Your task to perform on an android device: toggle translation in the chrome app Image 0: 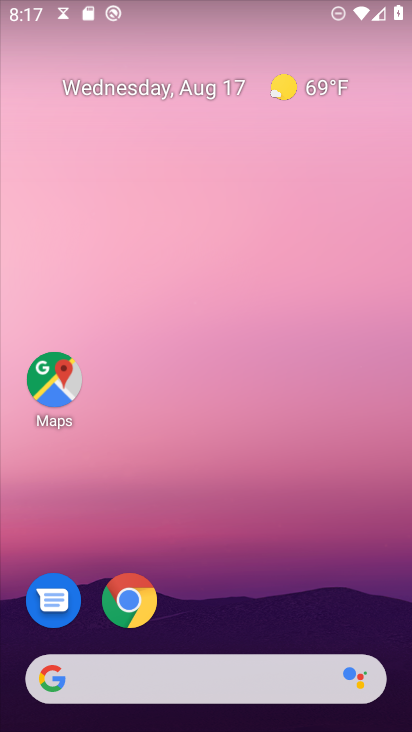
Step 0: press home button
Your task to perform on an android device: toggle translation in the chrome app Image 1: 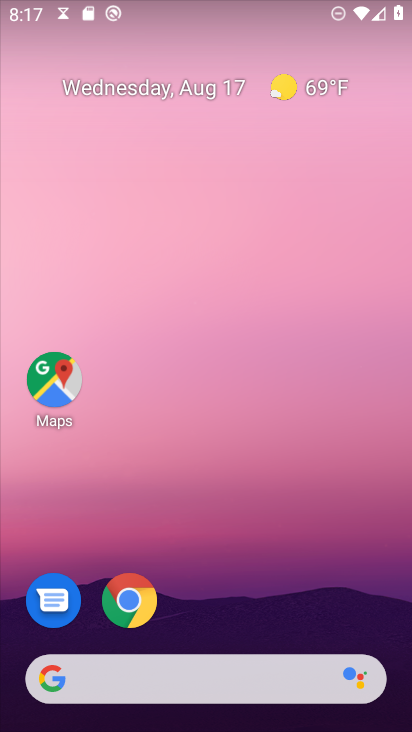
Step 1: click (120, 605)
Your task to perform on an android device: toggle translation in the chrome app Image 2: 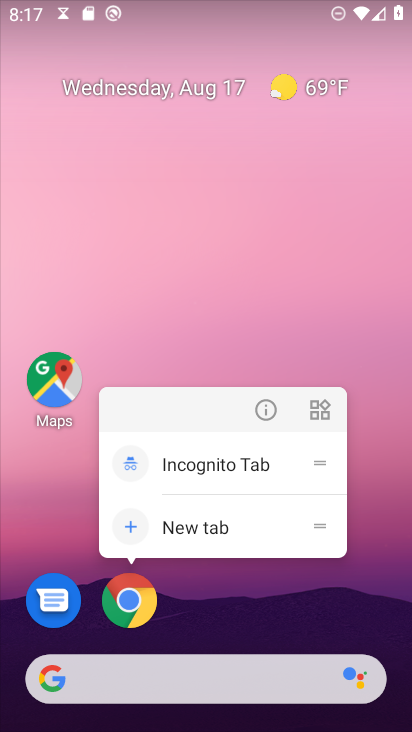
Step 2: click (122, 594)
Your task to perform on an android device: toggle translation in the chrome app Image 3: 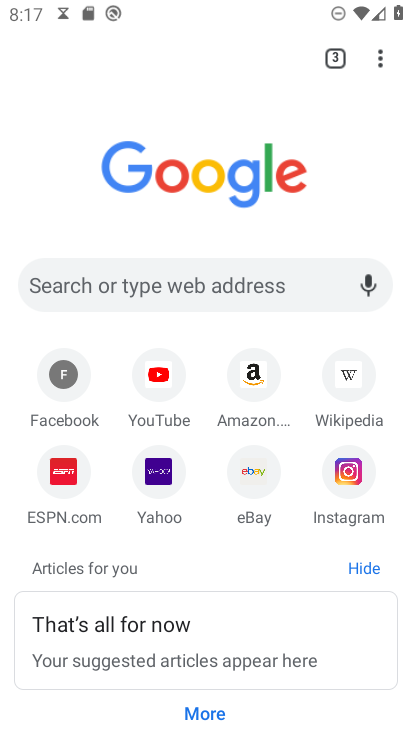
Step 3: drag from (378, 57) to (202, 496)
Your task to perform on an android device: toggle translation in the chrome app Image 4: 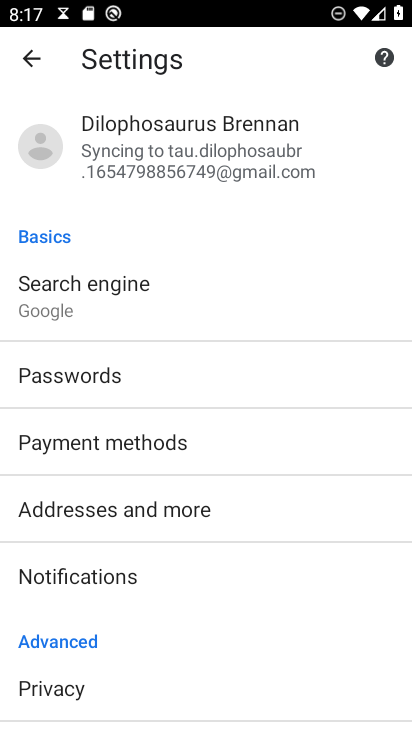
Step 4: drag from (120, 647) to (146, 168)
Your task to perform on an android device: toggle translation in the chrome app Image 5: 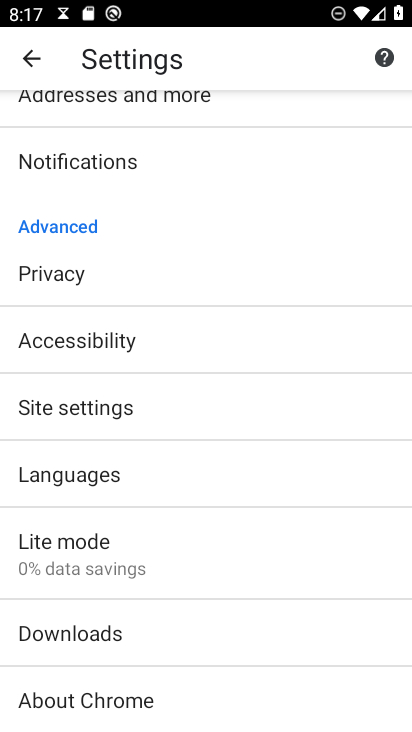
Step 5: click (62, 473)
Your task to perform on an android device: toggle translation in the chrome app Image 6: 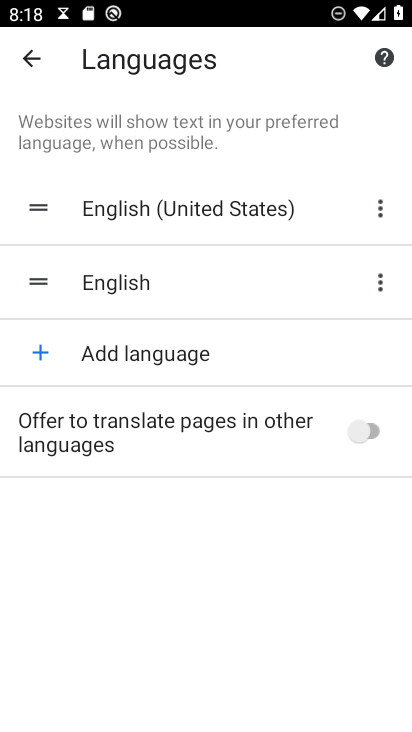
Step 6: click (367, 428)
Your task to perform on an android device: toggle translation in the chrome app Image 7: 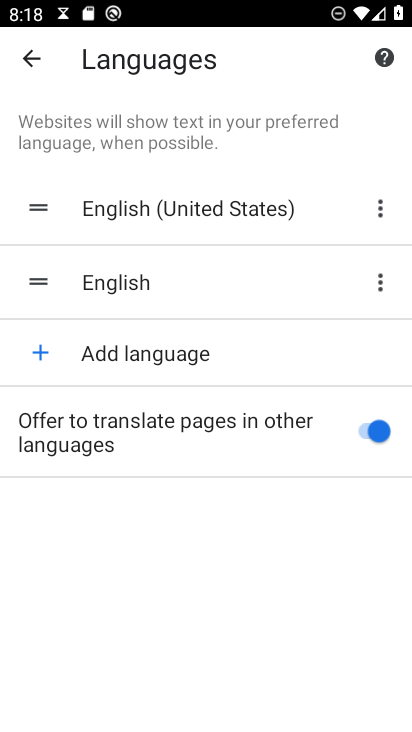
Step 7: task complete